Your task to perform on an android device: turn off sleep mode Image 0: 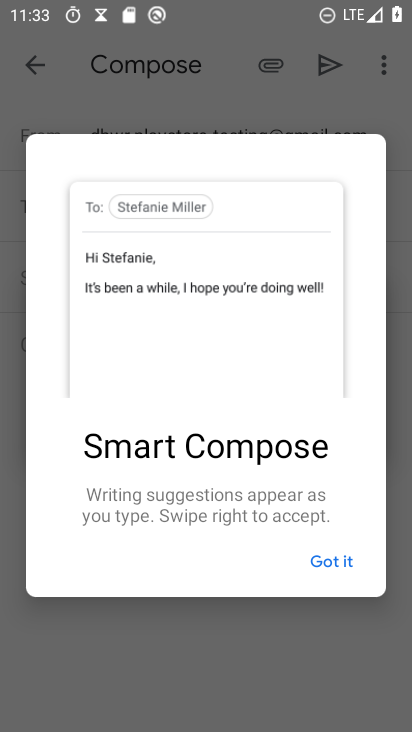
Step 0: press home button
Your task to perform on an android device: turn off sleep mode Image 1: 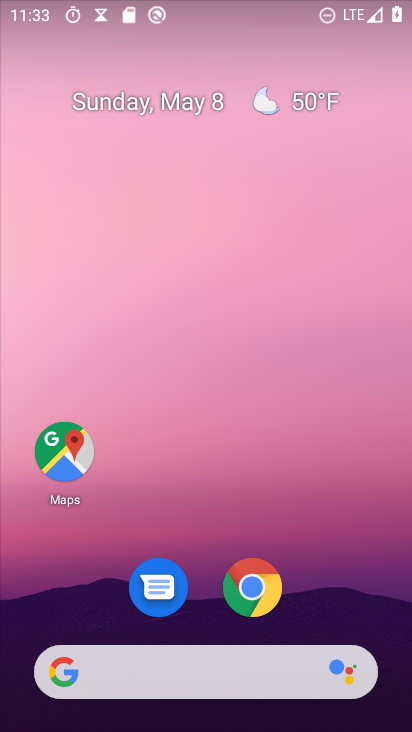
Step 1: drag from (325, 548) to (168, 229)
Your task to perform on an android device: turn off sleep mode Image 2: 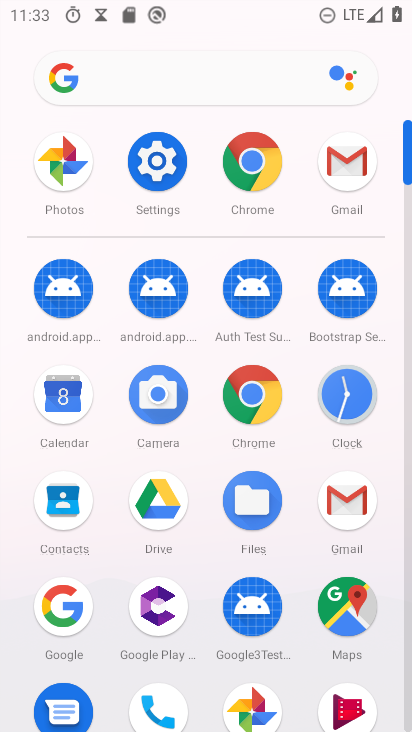
Step 2: click (155, 172)
Your task to perform on an android device: turn off sleep mode Image 3: 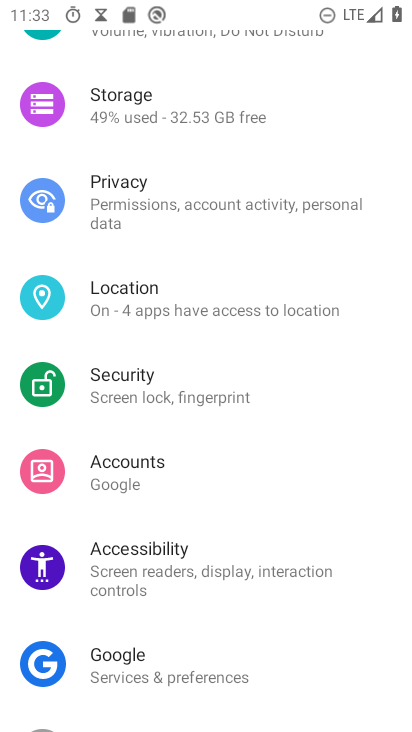
Step 3: drag from (156, 178) to (135, 607)
Your task to perform on an android device: turn off sleep mode Image 4: 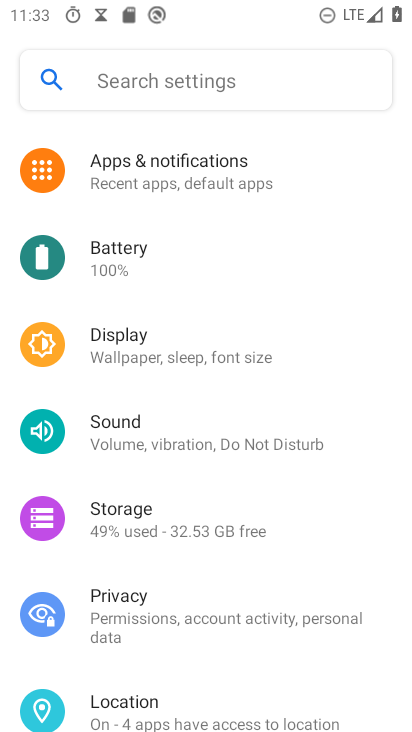
Step 4: click (141, 361)
Your task to perform on an android device: turn off sleep mode Image 5: 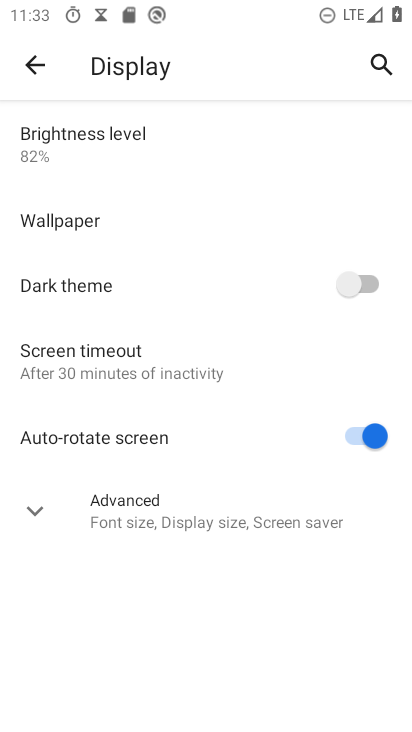
Step 5: click (73, 514)
Your task to perform on an android device: turn off sleep mode Image 6: 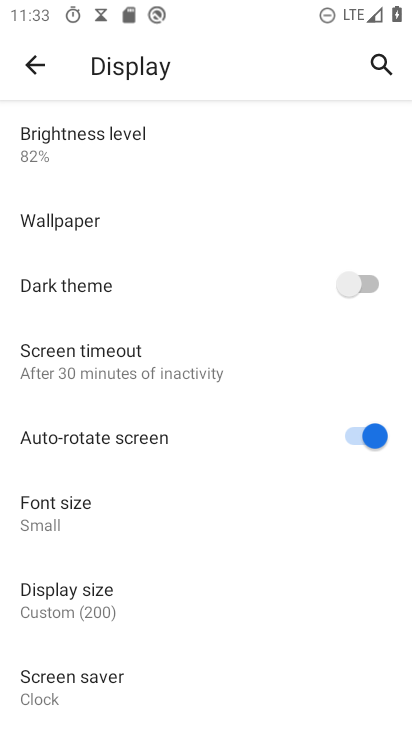
Step 6: task complete